Your task to perform on an android device: Find coffee shops on Maps Image 0: 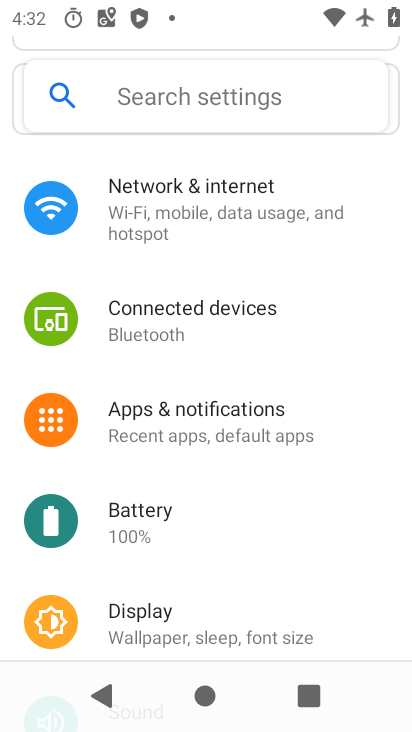
Step 0: press home button
Your task to perform on an android device: Find coffee shops on Maps Image 1: 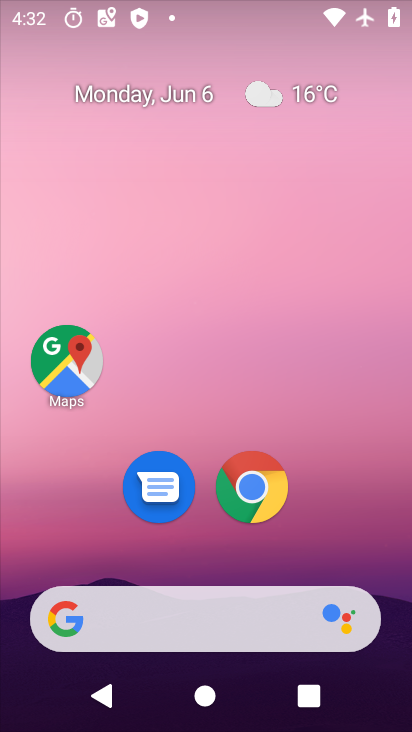
Step 1: drag from (206, 496) to (241, 141)
Your task to perform on an android device: Find coffee shops on Maps Image 2: 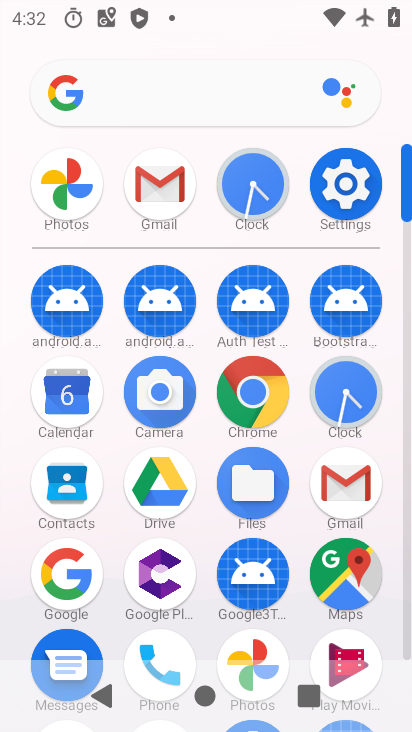
Step 2: click (325, 563)
Your task to perform on an android device: Find coffee shops on Maps Image 3: 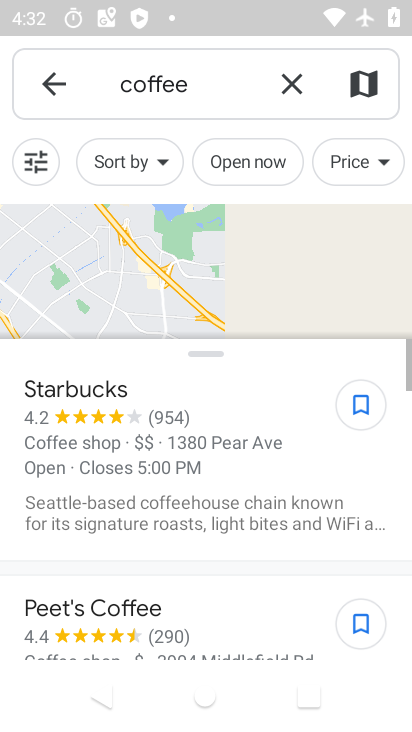
Step 3: click (235, 67)
Your task to perform on an android device: Find coffee shops on Maps Image 4: 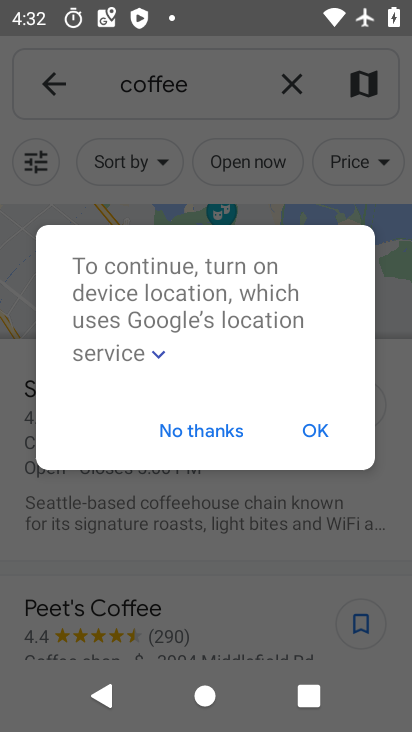
Step 4: click (327, 426)
Your task to perform on an android device: Find coffee shops on Maps Image 5: 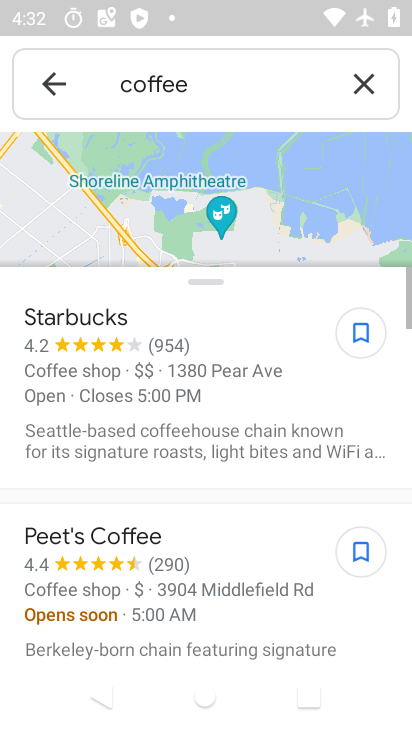
Step 5: click (227, 89)
Your task to perform on an android device: Find coffee shops on Maps Image 6: 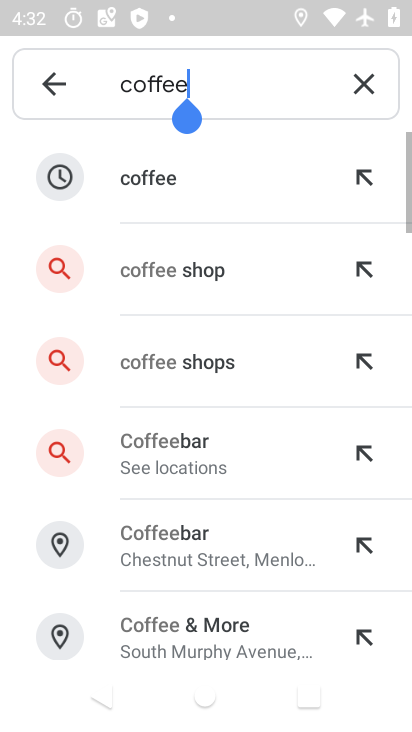
Step 6: click (228, 90)
Your task to perform on an android device: Find coffee shops on Maps Image 7: 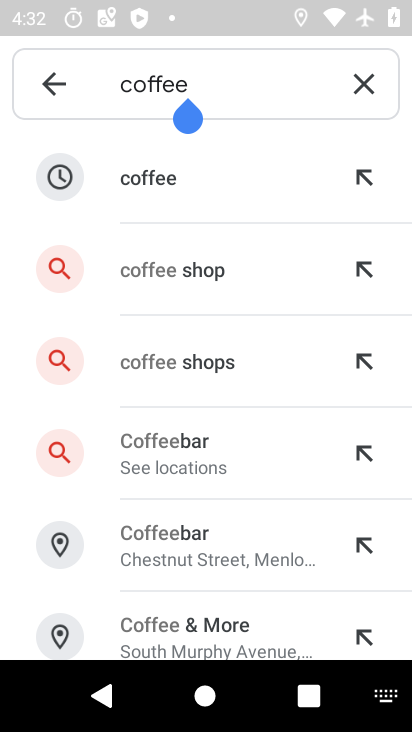
Step 7: click (240, 358)
Your task to perform on an android device: Find coffee shops on Maps Image 8: 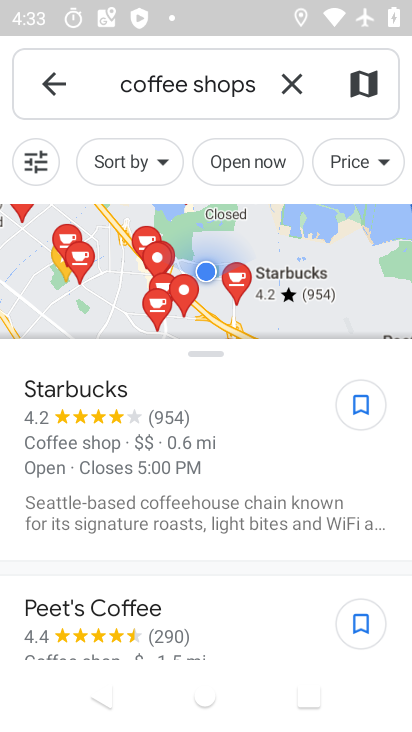
Step 8: task complete